Your task to perform on an android device: snooze an email in the gmail app Image 0: 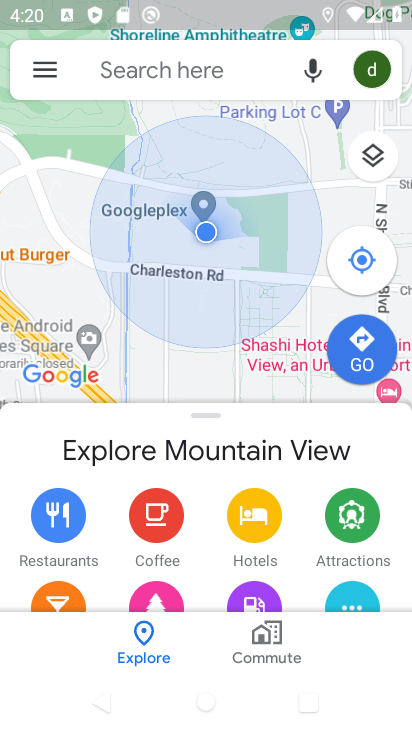
Step 0: press home button
Your task to perform on an android device: snooze an email in the gmail app Image 1: 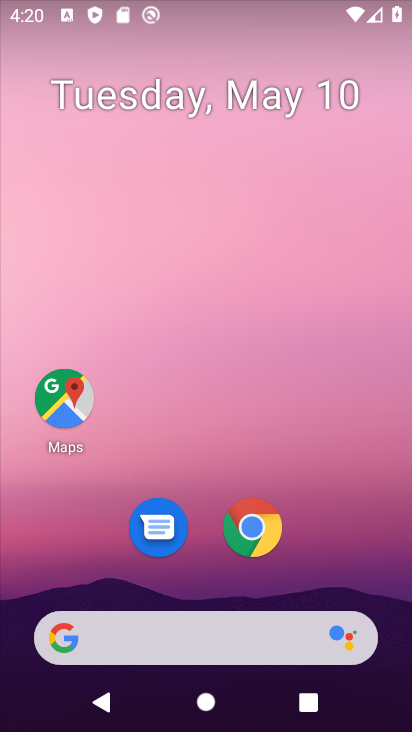
Step 1: drag from (306, 540) to (298, 11)
Your task to perform on an android device: snooze an email in the gmail app Image 2: 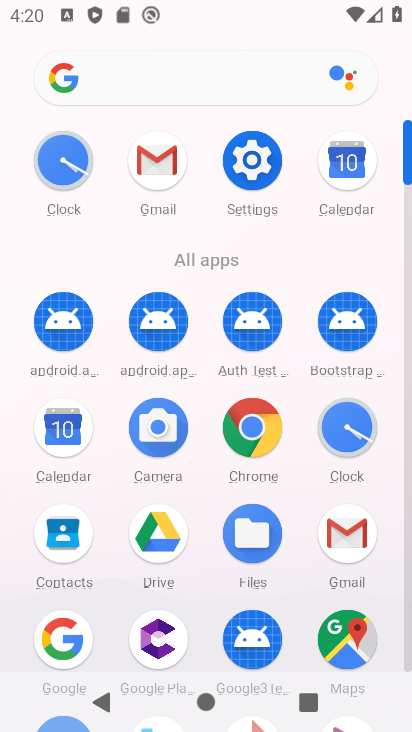
Step 2: click (160, 163)
Your task to perform on an android device: snooze an email in the gmail app Image 3: 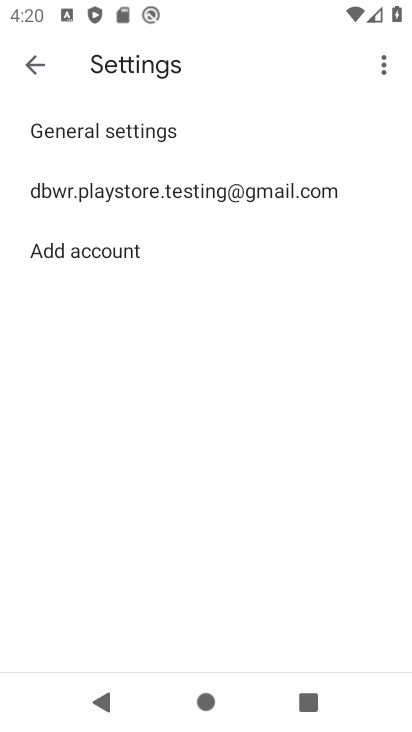
Step 3: click (40, 61)
Your task to perform on an android device: snooze an email in the gmail app Image 4: 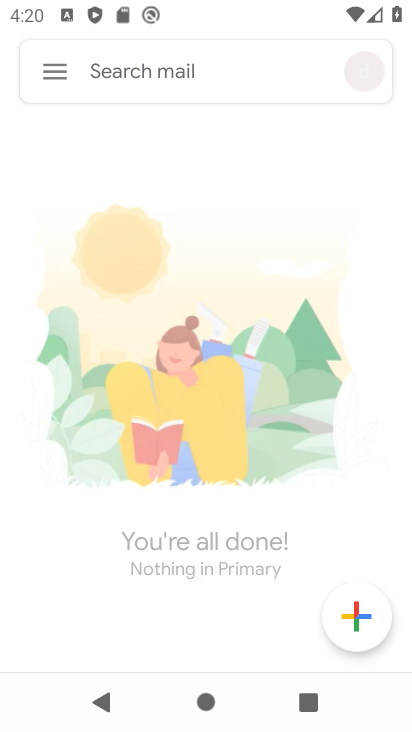
Step 4: click (56, 74)
Your task to perform on an android device: snooze an email in the gmail app Image 5: 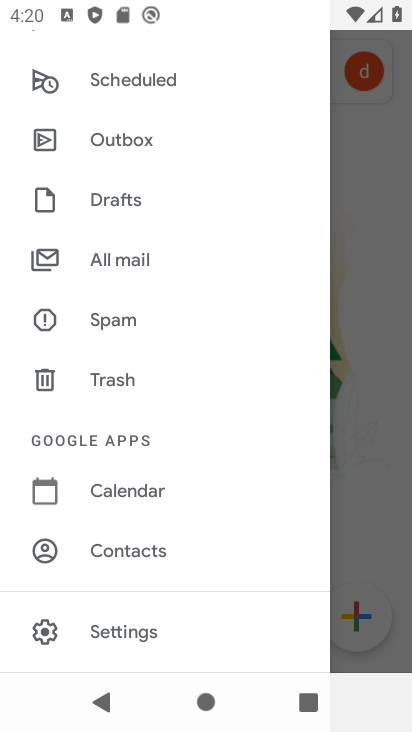
Step 5: click (113, 257)
Your task to perform on an android device: snooze an email in the gmail app Image 6: 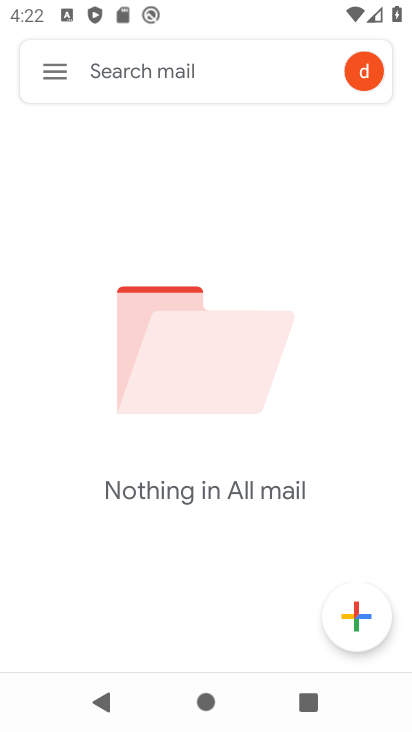
Step 6: task complete